Your task to perform on an android device: turn off wifi Image 0: 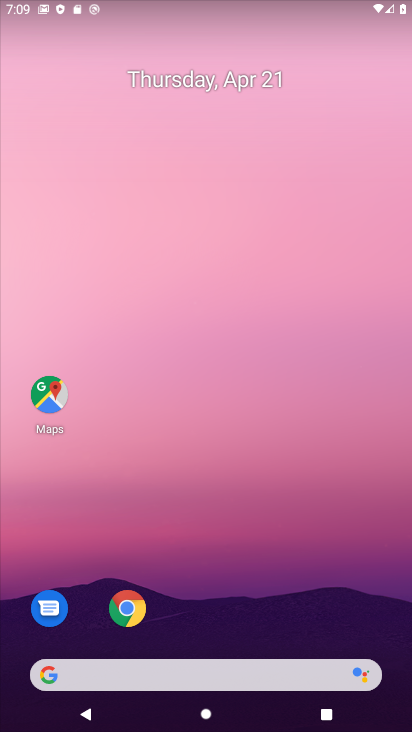
Step 0: drag from (255, 415) to (281, 117)
Your task to perform on an android device: turn off wifi Image 1: 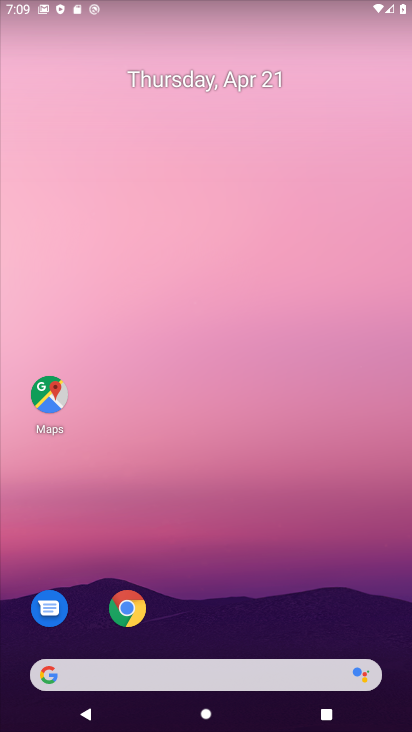
Step 1: drag from (242, 306) to (242, 143)
Your task to perform on an android device: turn off wifi Image 2: 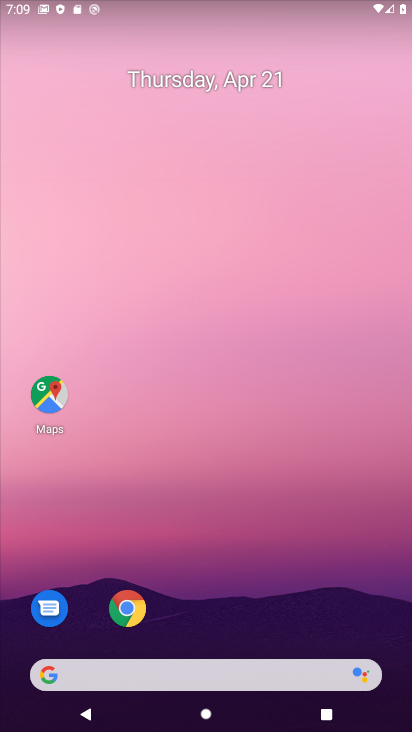
Step 2: drag from (219, 404) to (222, 119)
Your task to perform on an android device: turn off wifi Image 3: 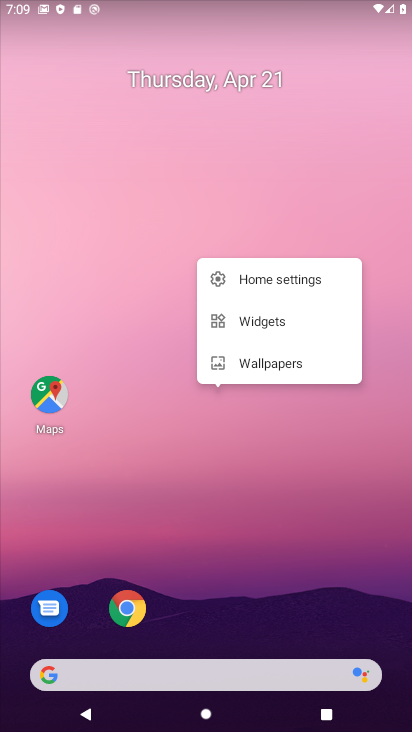
Step 3: drag from (204, 593) to (244, 197)
Your task to perform on an android device: turn off wifi Image 4: 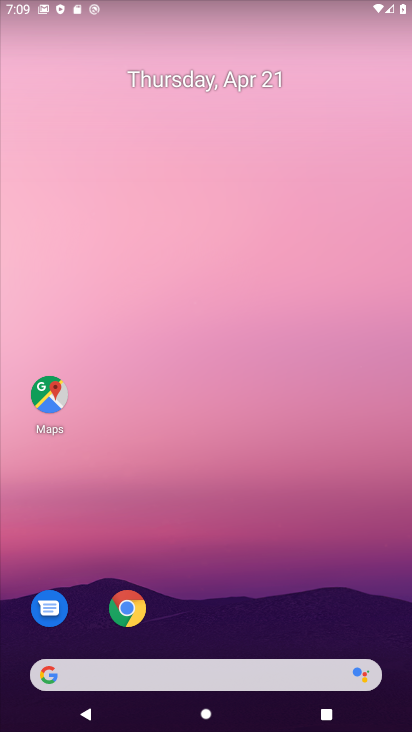
Step 4: drag from (238, 179) to (239, 126)
Your task to perform on an android device: turn off wifi Image 5: 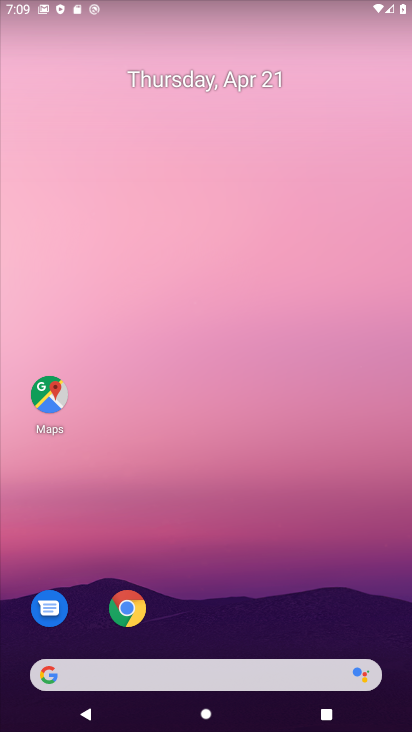
Step 5: drag from (243, 630) to (269, 60)
Your task to perform on an android device: turn off wifi Image 6: 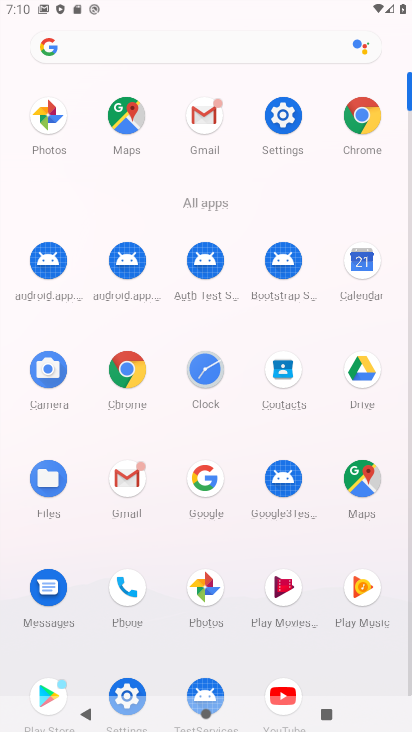
Step 6: click (284, 124)
Your task to perform on an android device: turn off wifi Image 7: 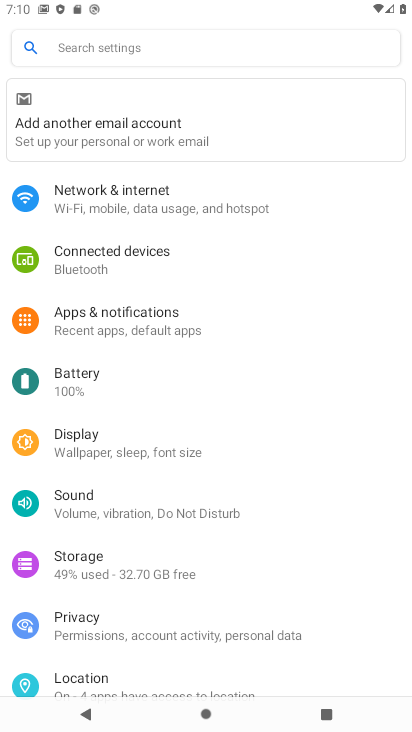
Step 7: click (230, 199)
Your task to perform on an android device: turn off wifi Image 8: 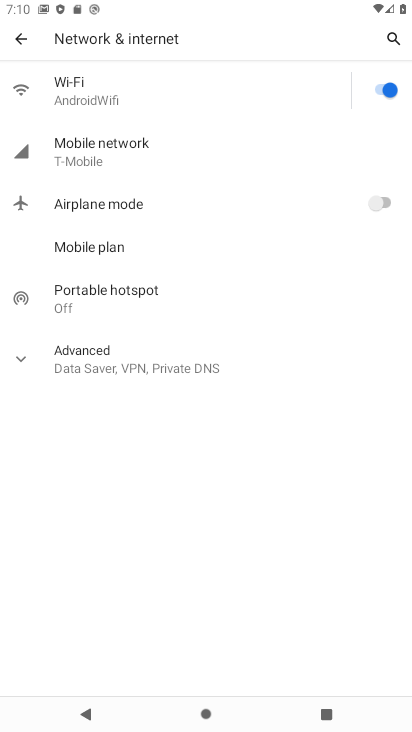
Step 8: click (133, 109)
Your task to perform on an android device: turn off wifi Image 9: 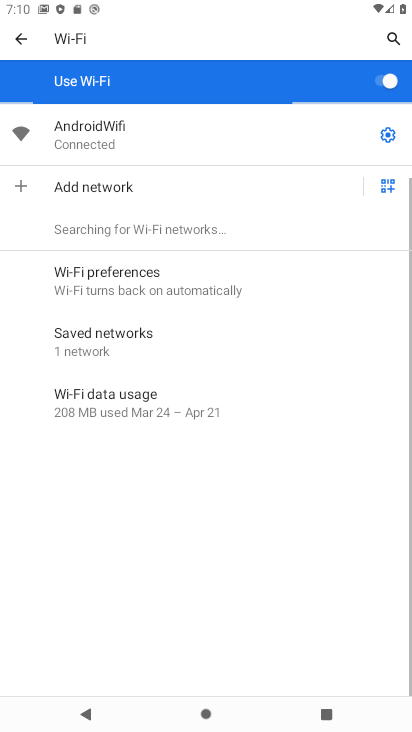
Step 9: click (384, 79)
Your task to perform on an android device: turn off wifi Image 10: 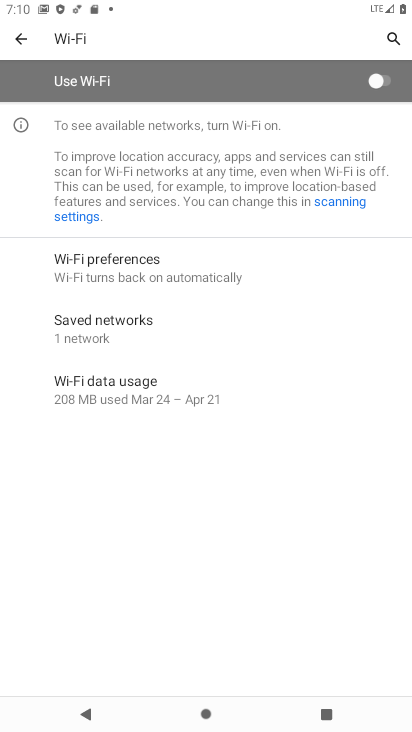
Step 10: task complete